Your task to perform on an android device: What's the weather going to be tomorrow? Image 0: 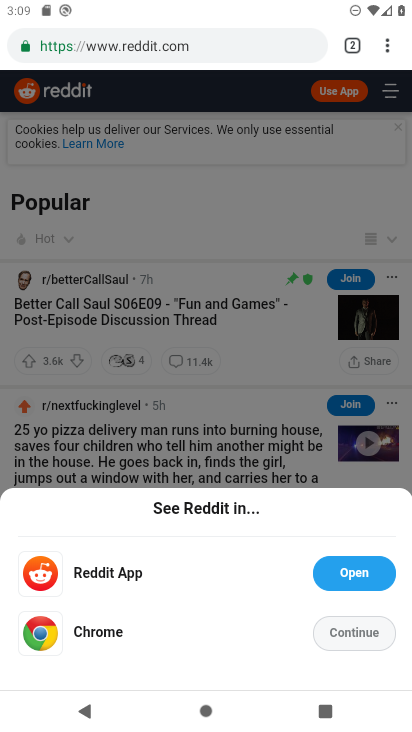
Step 0: press home button
Your task to perform on an android device: What's the weather going to be tomorrow? Image 1: 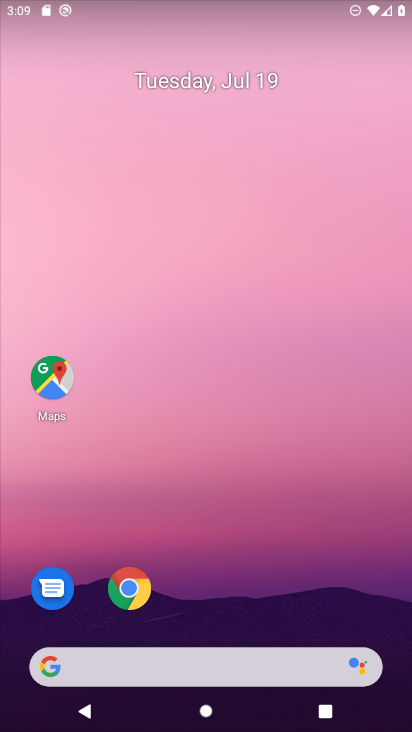
Step 1: click (137, 675)
Your task to perform on an android device: What's the weather going to be tomorrow? Image 2: 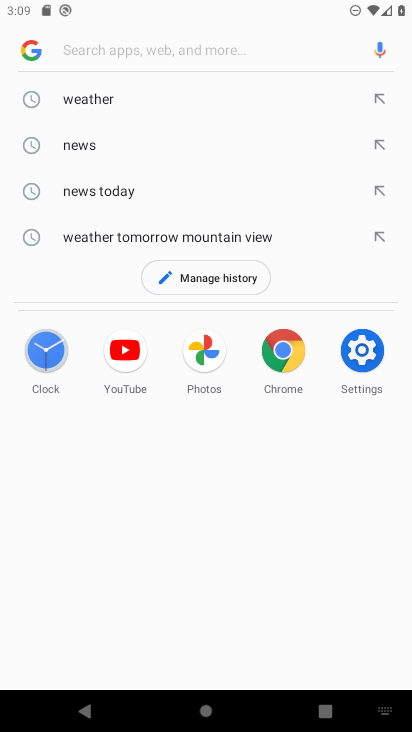
Step 2: click (79, 98)
Your task to perform on an android device: What's the weather going to be tomorrow? Image 3: 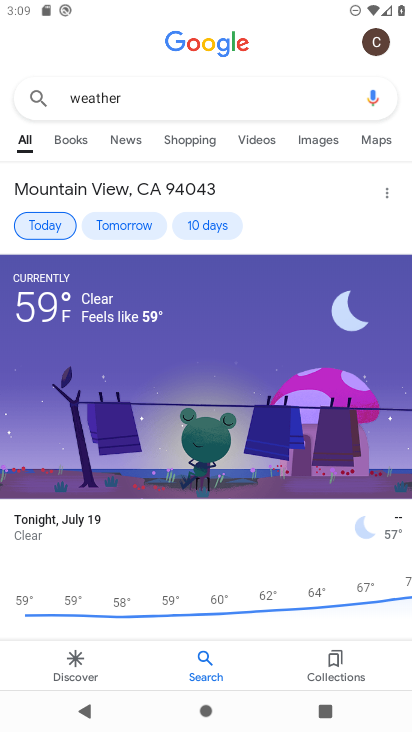
Step 3: task complete